Your task to perform on an android device: Open settings Image 0: 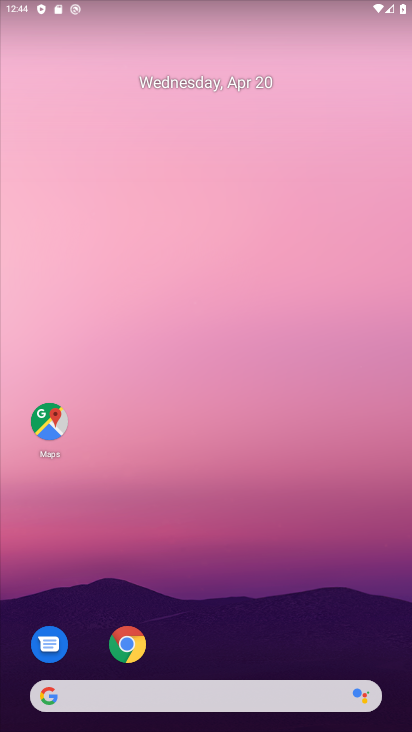
Step 0: drag from (194, 494) to (242, 0)
Your task to perform on an android device: Open settings Image 1: 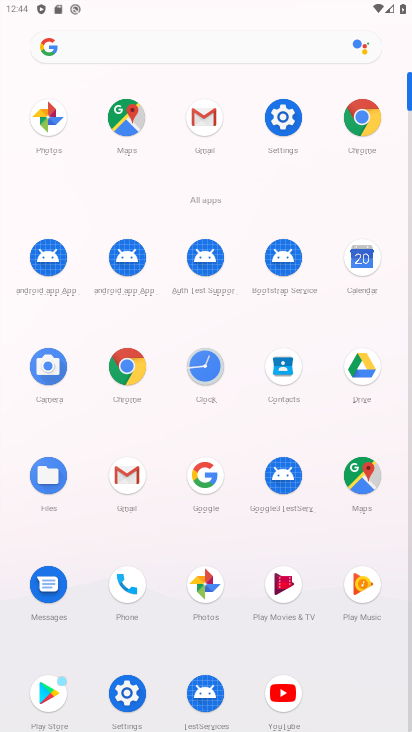
Step 1: click (280, 116)
Your task to perform on an android device: Open settings Image 2: 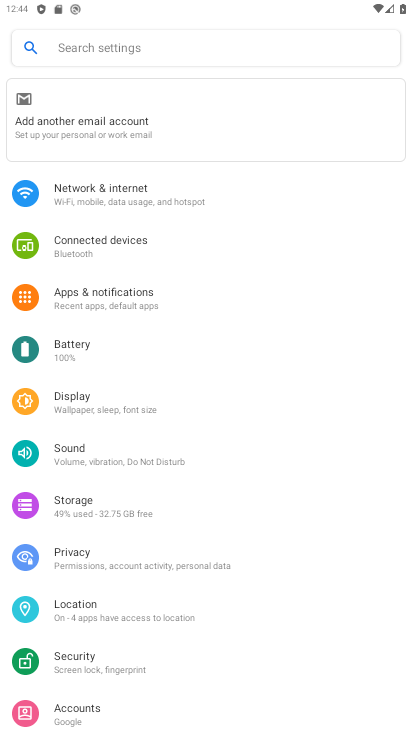
Step 2: task complete